Your task to perform on an android device: Check the weather Image 0: 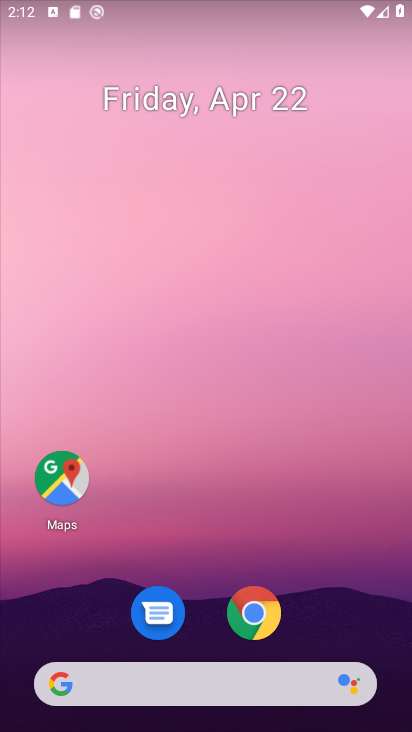
Step 0: click (212, 686)
Your task to perform on an android device: Check the weather Image 1: 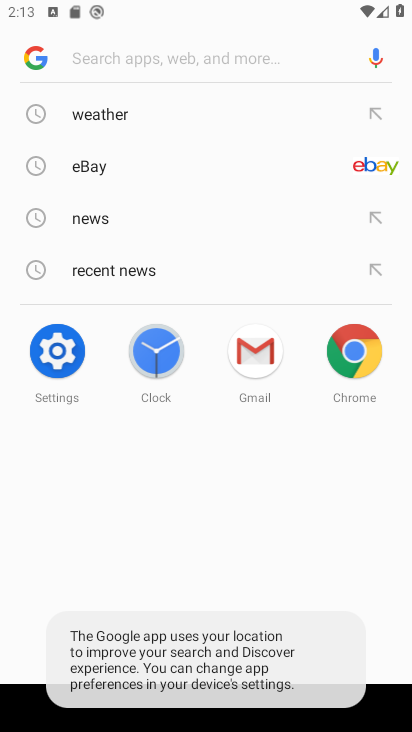
Step 1: click (149, 111)
Your task to perform on an android device: Check the weather Image 2: 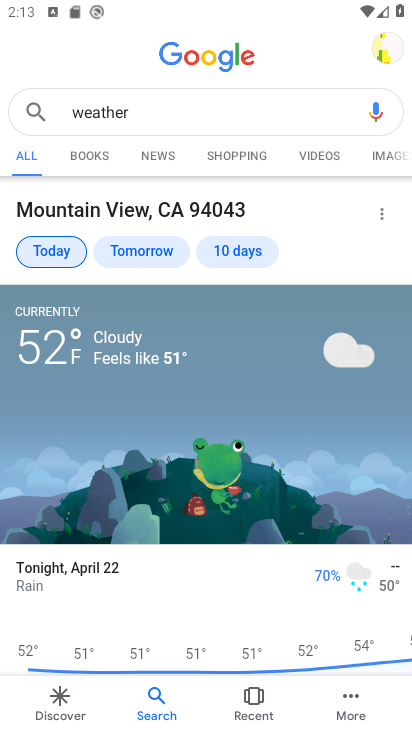
Step 2: task complete